Your task to perform on an android device: Open calendar and show me the third week of next month Image 0: 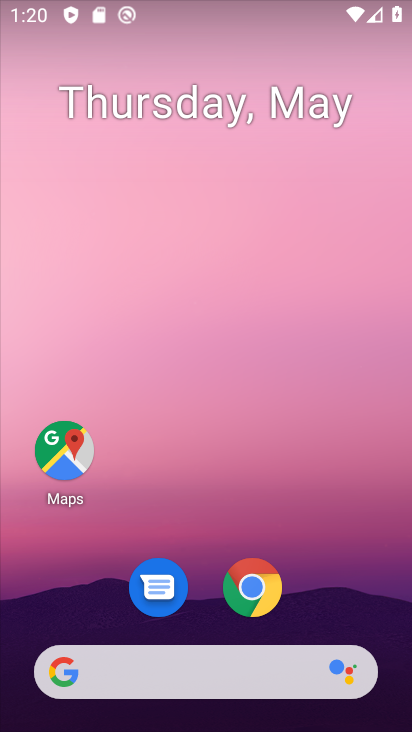
Step 0: drag from (321, 562) to (83, 6)
Your task to perform on an android device: Open calendar and show me the third week of next month Image 1: 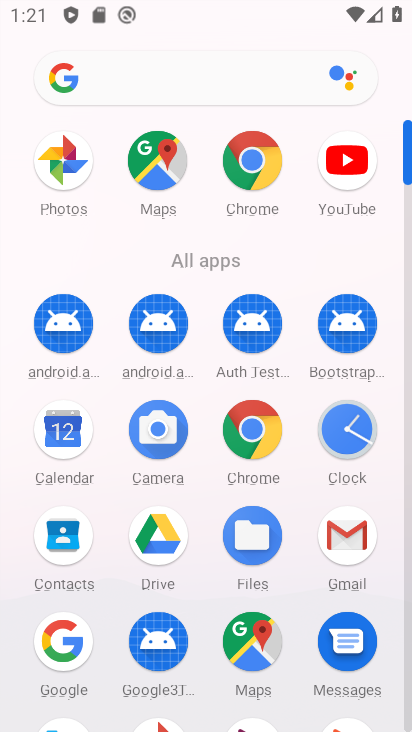
Step 1: click (61, 436)
Your task to perform on an android device: Open calendar and show me the third week of next month Image 2: 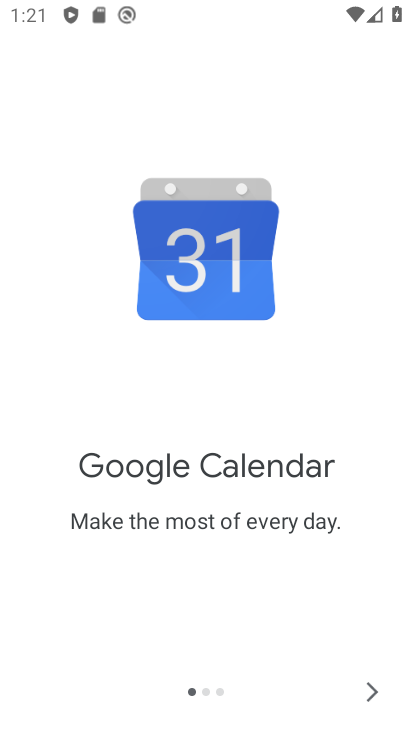
Step 2: click (371, 696)
Your task to perform on an android device: Open calendar and show me the third week of next month Image 3: 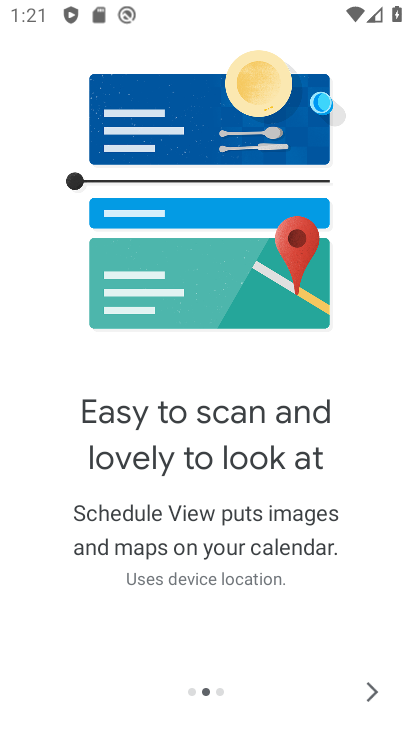
Step 3: click (371, 696)
Your task to perform on an android device: Open calendar and show me the third week of next month Image 4: 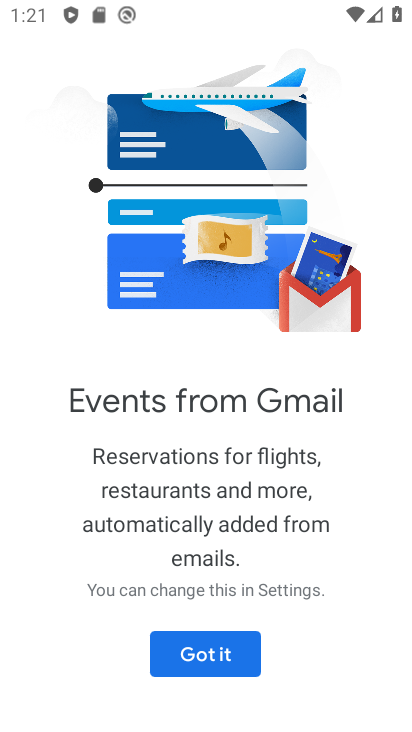
Step 4: click (191, 640)
Your task to perform on an android device: Open calendar and show me the third week of next month Image 5: 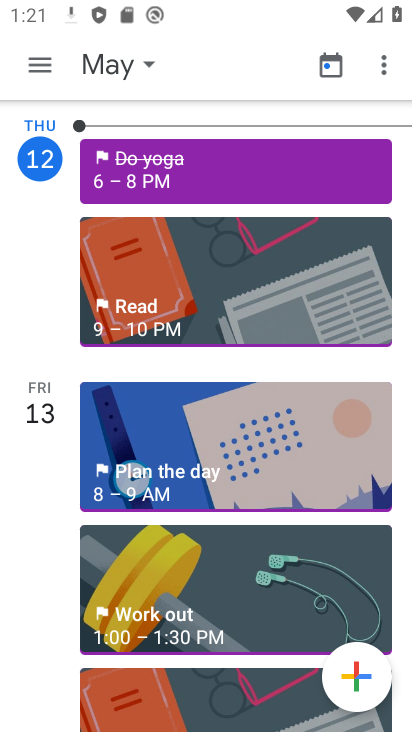
Step 5: click (40, 65)
Your task to perform on an android device: Open calendar and show me the third week of next month Image 6: 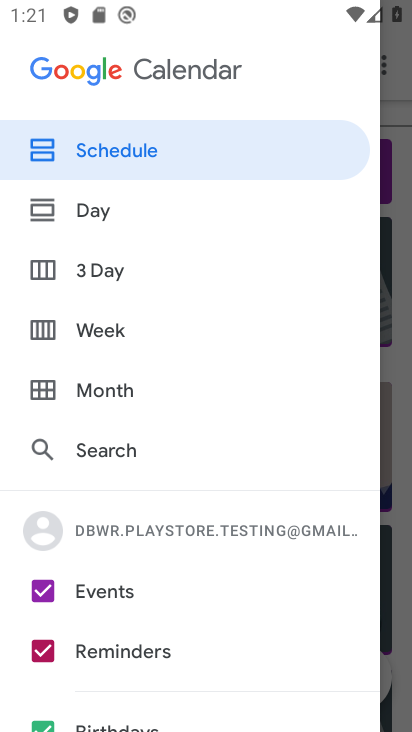
Step 6: click (89, 326)
Your task to perform on an android device: Open calendar and show me the third week of next month Image 7: 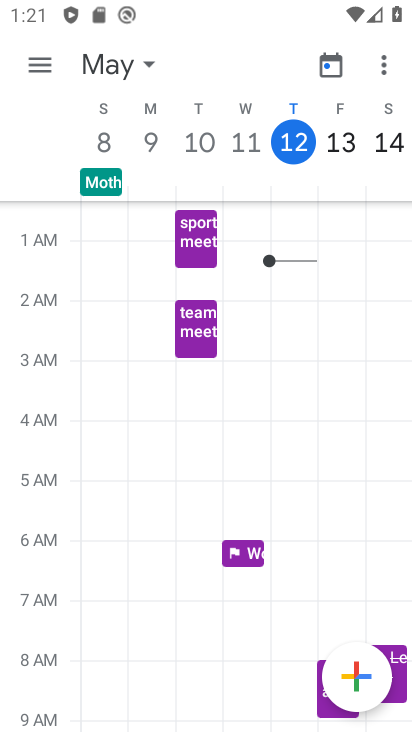
Step 7: click (150, 64)
Your task to perform on an android device: Open calendar and show me the third week of next month Image 8: 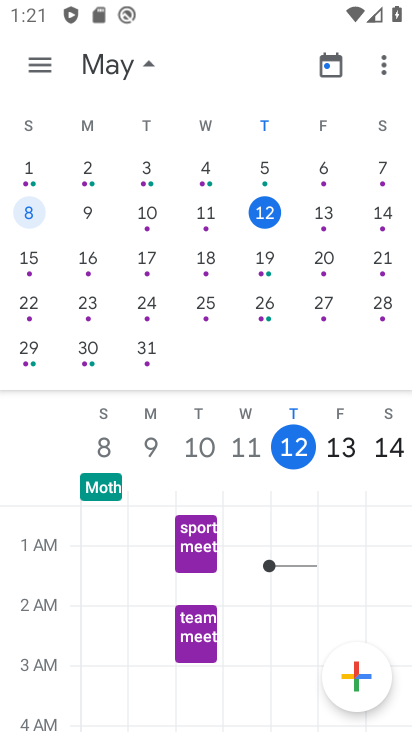
Step 8: drag from (385, 270) to (4, 322)
Your task to perform on an android device: Open calendar and show me the third week of next month Image 9: 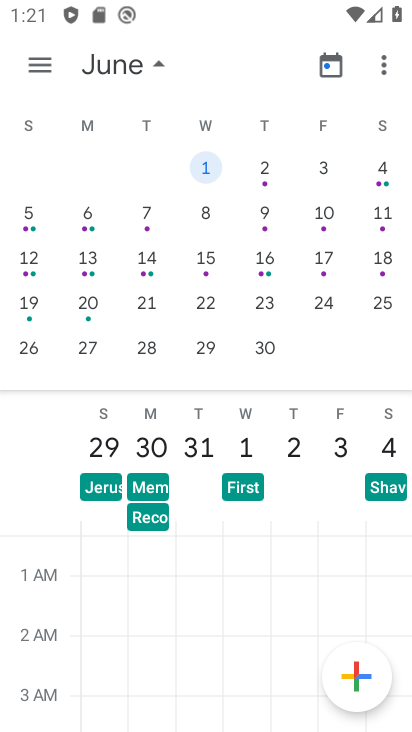
Step 9: click (208, 261)
Your task to perform on an android device: Open calendar and show me the third week of next month Image 10: 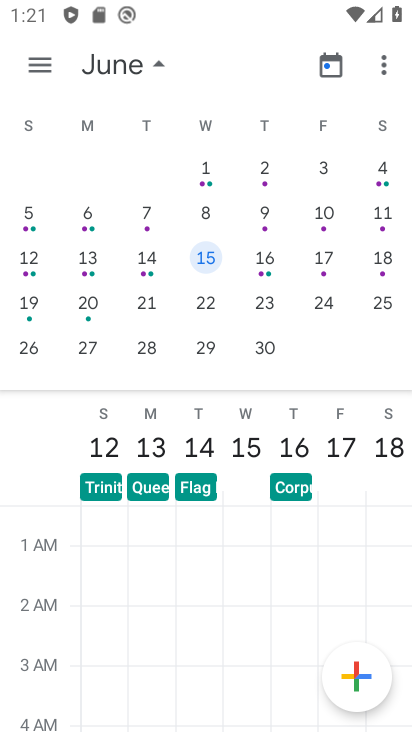
Step 10: task complete